Your task to perform on an android device: add a contact Image 0: 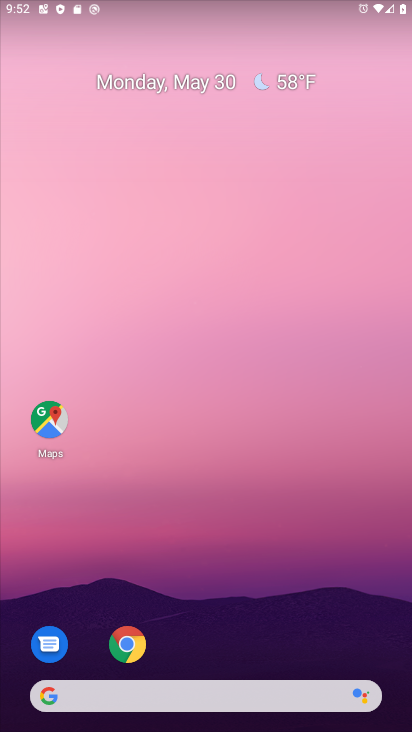
Step 0: drag from (372, 633) to (307, 205)
Your task to perform on an android device: add a contact Image 1: 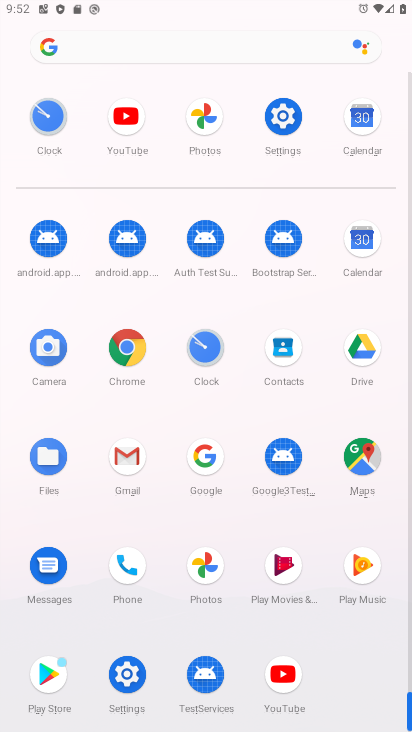
Step 1: click (287, 349)
Your task to perform on an android device: add a contact Image 2: 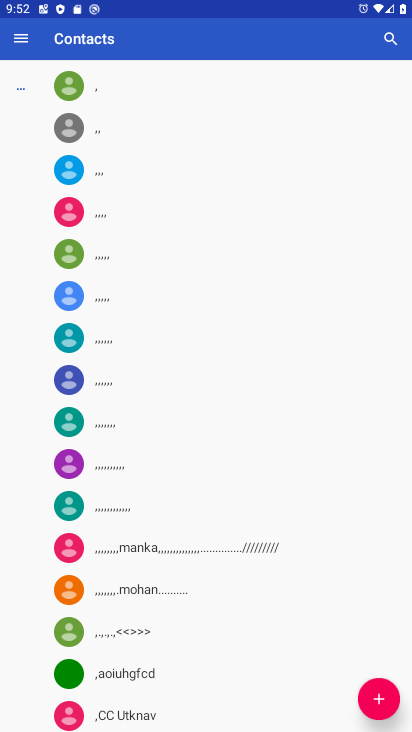
Step 2: click (378, 697)
Your task to perform on an android device: add a contact Image 3: 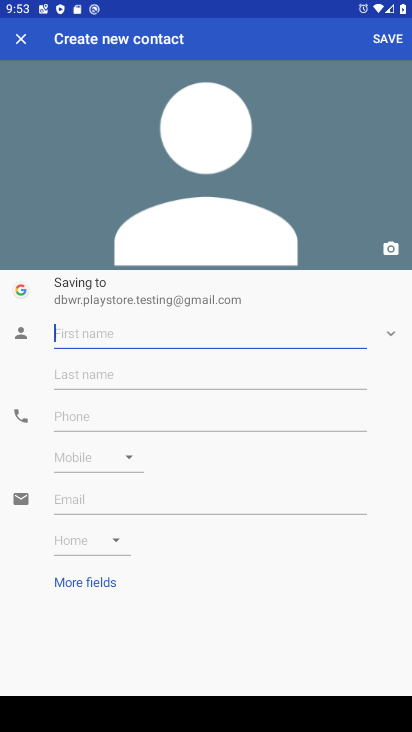
Step 3: type "yttertrthjgfgdf"
Your task to perform on an android device: add a contact Image 4: 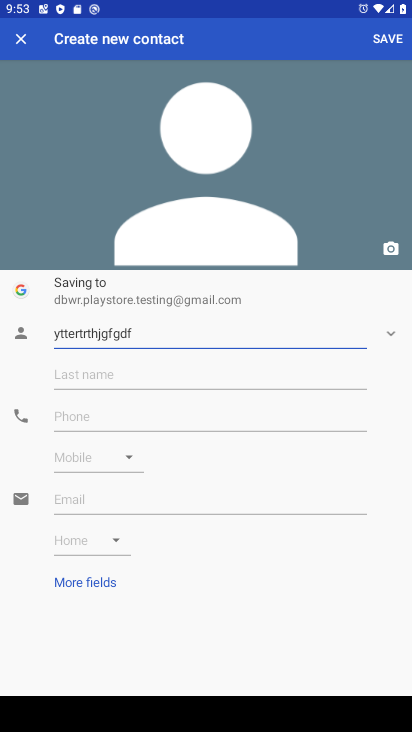
Step 4: click (82, 419)
Your task to perform on an android device: add a contact Image 5: 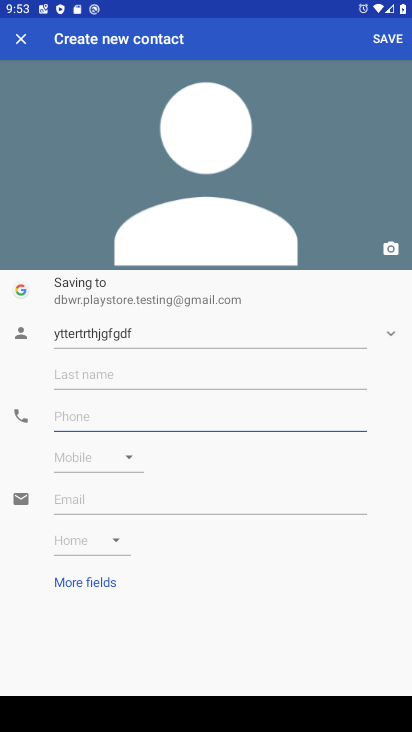
Step 5: type "079876543"
Your task to perform on an android device: add a contact Image 6: 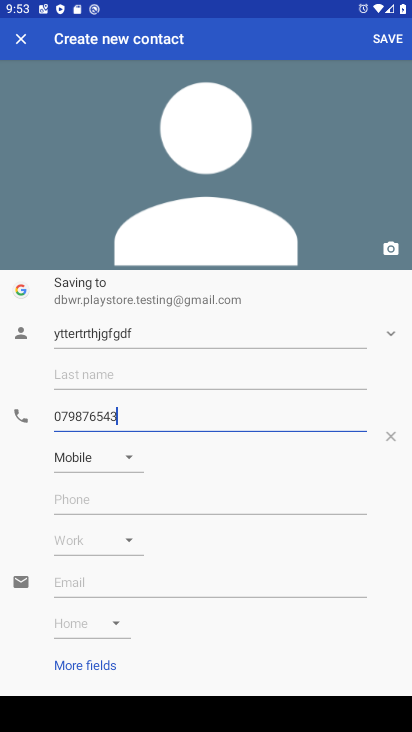
Step 6: click (125, 447)
Your task to perform on an android device: add a contact Image 7: 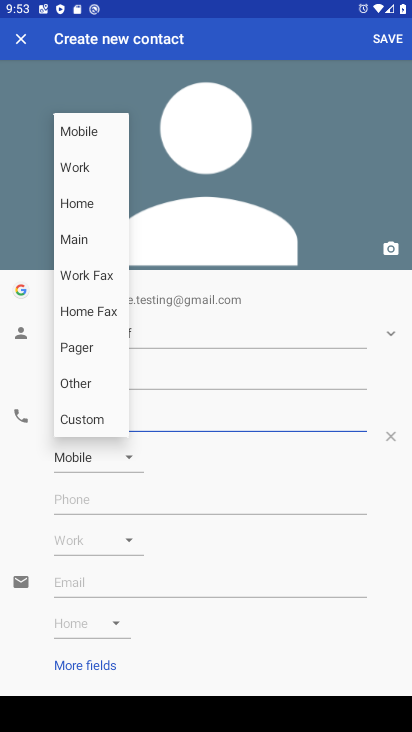
Step 7: click (80, 197)
Your task to perform on an android device: add a contact Image 8: 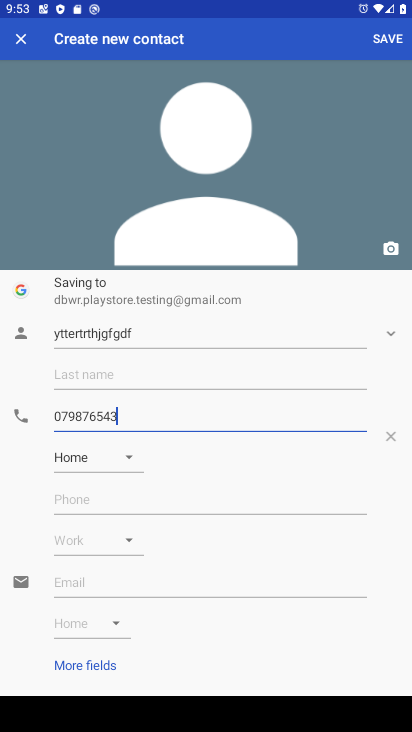
Step 8: click (388, 31)
Your task to perform on an android device: add a contact Image 9: 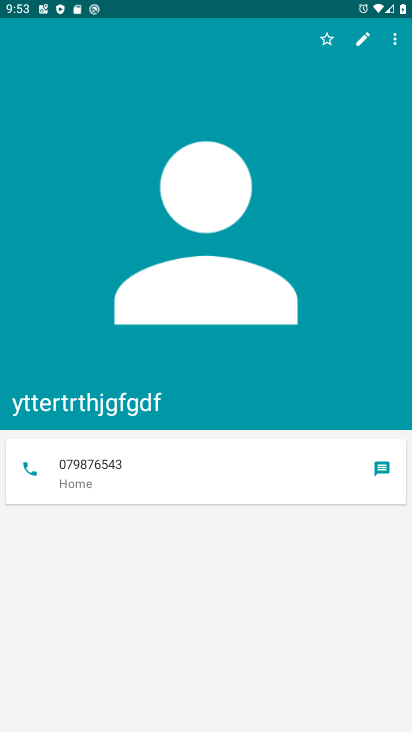
Step 9: task complete